Your task to perform on an android device: What's on my calendar today? Image 0: 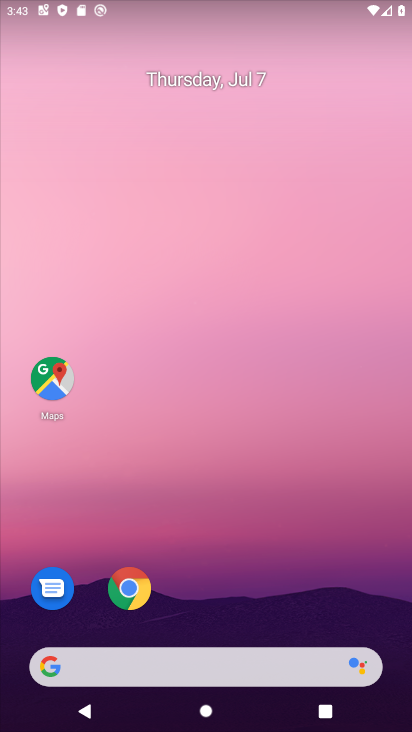
Step 0: drag from (307, 662) to (269, 95)
Your task to perform on an android device: What's on my calendar today? Image 1: 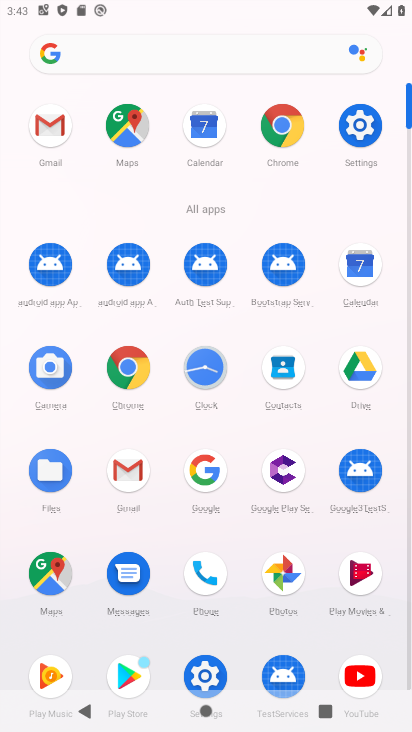
Step 1: click (359, 264)
Your task to perform on an android device: What's on my calendar today? Image 2: 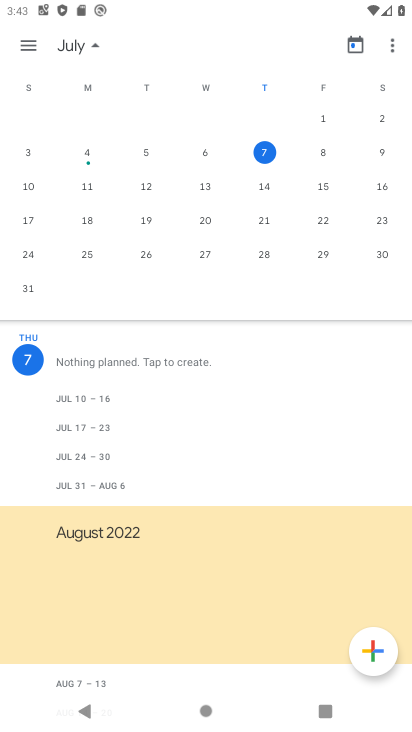
Step 2: click (269, 149)
Your task to perform on an android device: What's on my calendar today? Image 3: 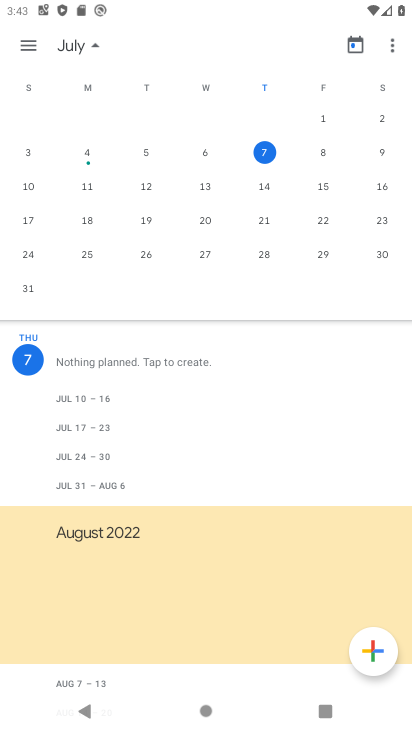
Step 3: task complete